Your task to perform on an android device: toggle data saver in the chrome app Image 0: 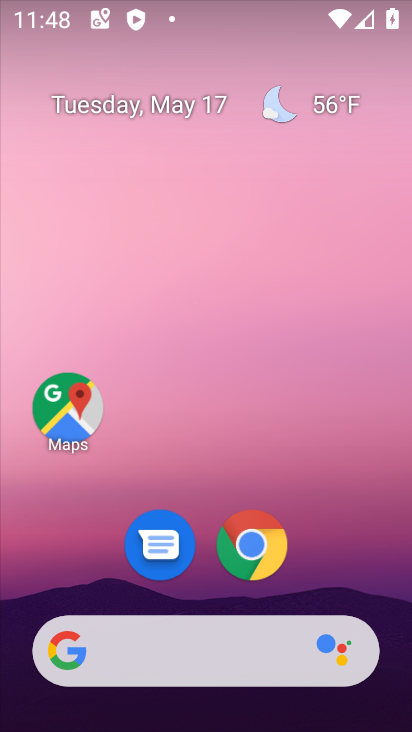
Step 0: click (247, 549)
Your task to perform on an android device: toggle data saver in the chrome app Image 1: 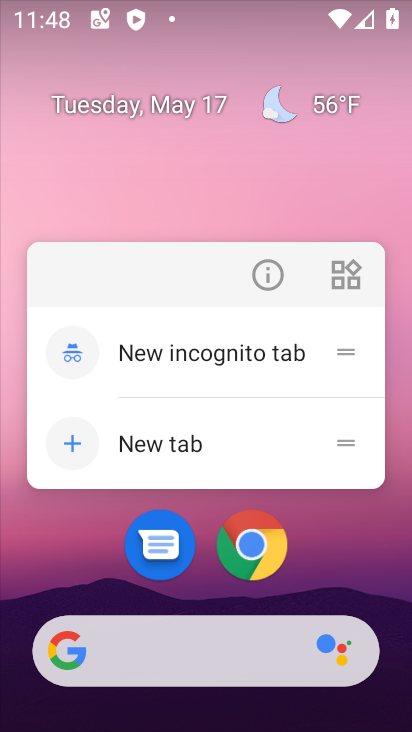
Step 1: click (259, 567)
Your task to perform on an android device: toggle data saver in the chrome app Image 2: 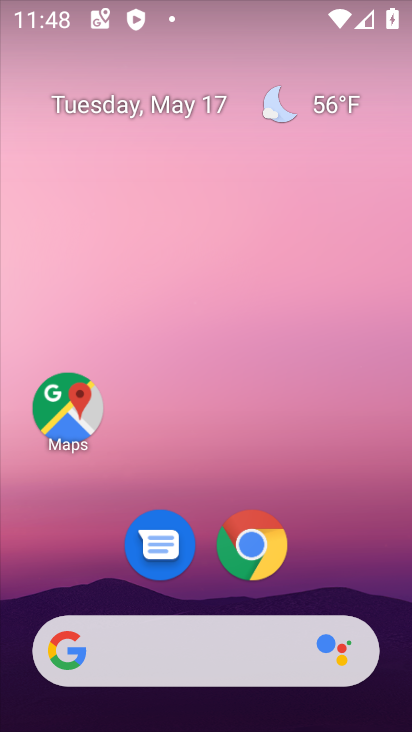
Step 2: click (253, 559)
Your task to perform on an android device: toggle data saver in the chrome app Image 3: 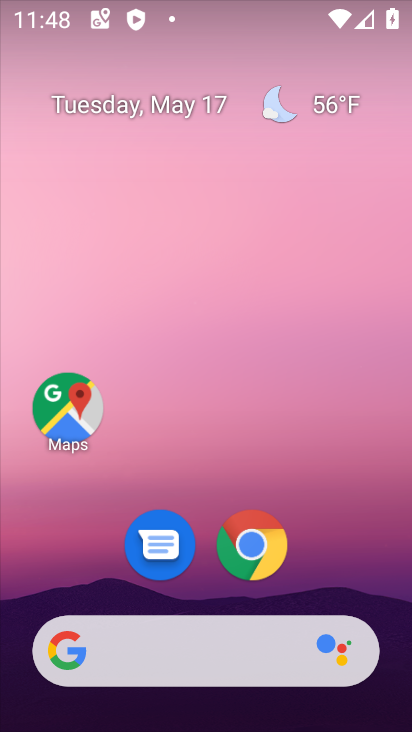
Step 3: drag from (178, 674) to (255, 21)
Your task to perform on an android device: toggle data saver in the chrome app Image 4: 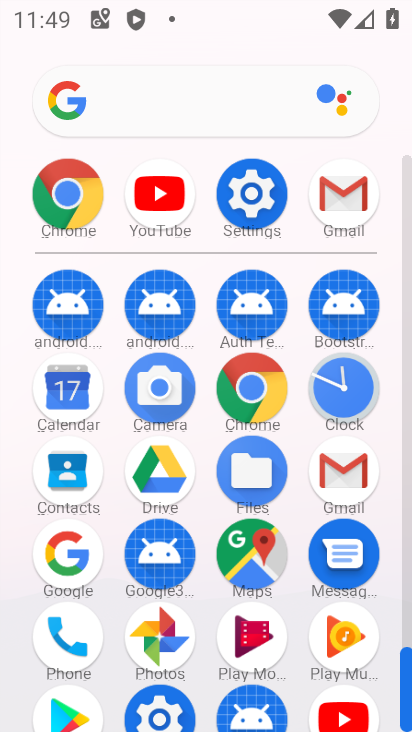
Step 4: click (268, 403)
Your task to perform on an android device: toggle data saver in the chrome app Image 5: 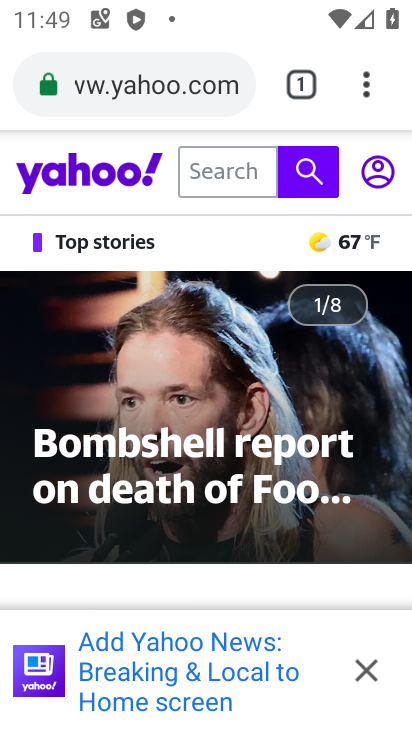
Step 5: click (375, 96)
Your task to perform on an android device: toggle data saver in the chrome app Image 6: 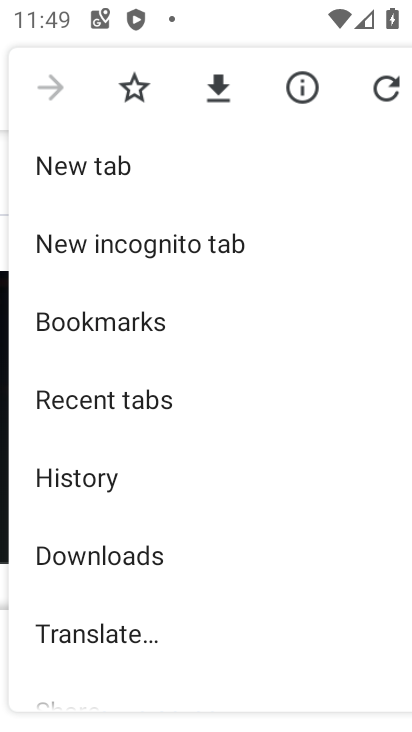
Step 6: drag from (258, 452) to (247, 162)
Your task to perform on an android device: toggle data saver in the chrome app Image 7: 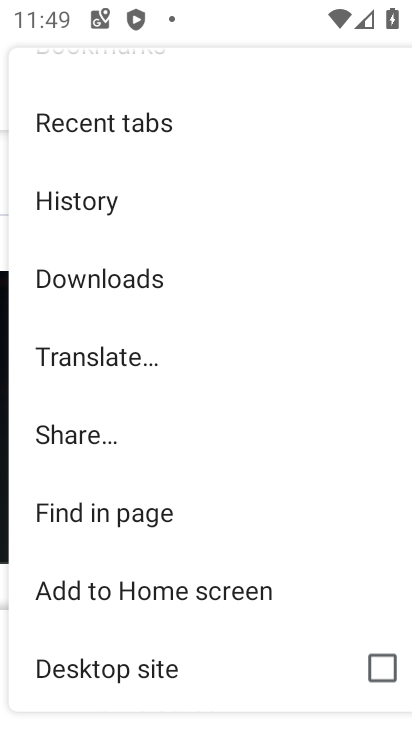
Step 7: drag from (179, 567) to (191, 157)
Your task to perform on an android device: toggle data saver in the chrome app Image 8: 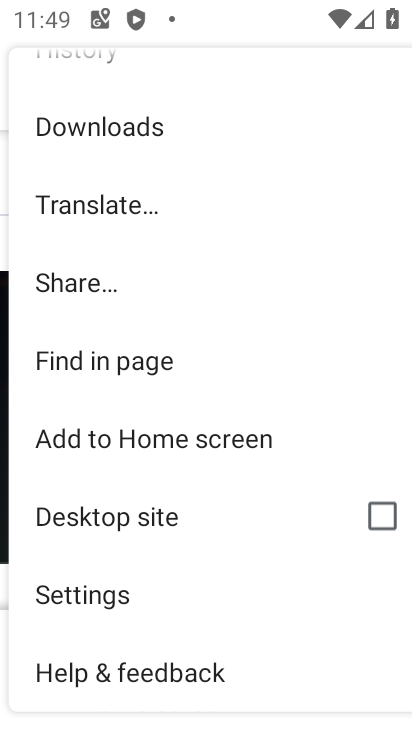
Step 8: click (127, 602)
Your task to perform on an android device: toggle data saver in the chrome app Image 9: 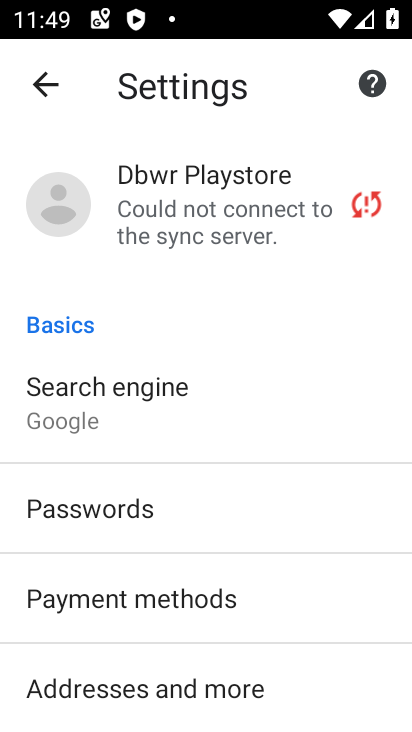
Step 9: drag from (127, 602) to (131, 288)
Your task to perform on an android device: toggle data saver in the chrome app Image 10: 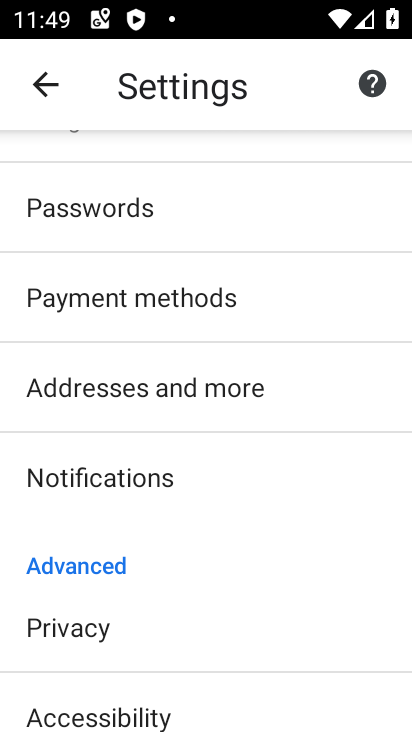
Step 10: drag from (163, 631) to (208, 344)
Your task to perform on an android device: toggle data saver in the chrome app Image 11: 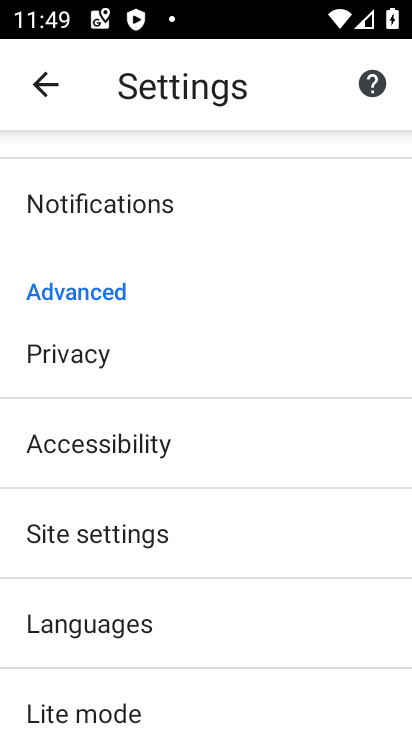
Step 11: drag from (254, 588) to (263, 398)
Your task to perform on an android device: toggle data saver in the chrome app Image 12: 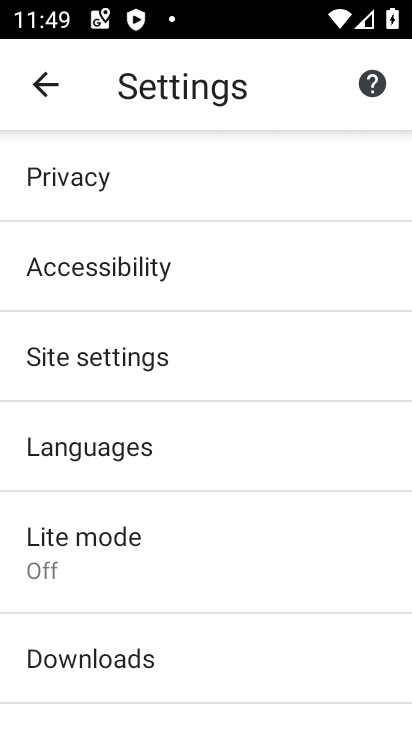
Step 12: drag from (158, 571) to (177, 463)
Your task to perform on an android device: toggle data saver in the chrome app Image 13: 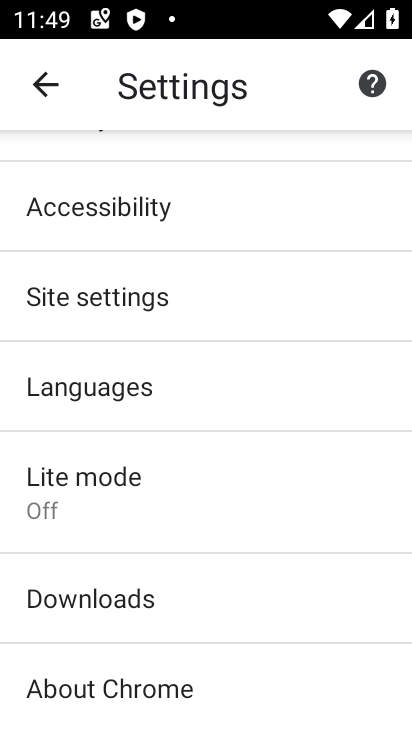
Step 13: click (153, 535)
Your task to perform on an android device: toggle data saver in the chrome app Image 14: 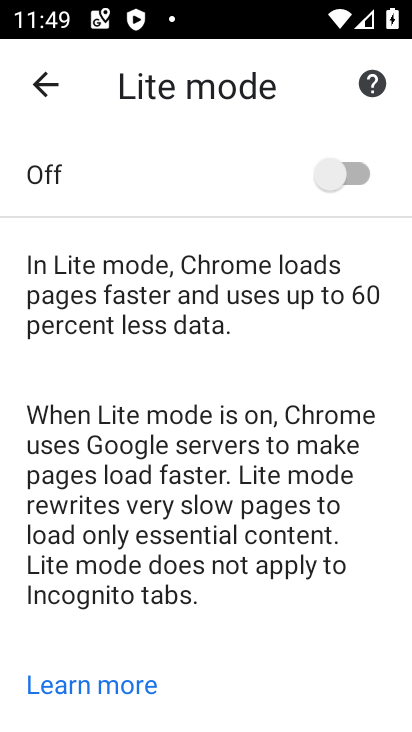
Step 14: click (369, 174)
Your task to perform on an android device: toggle data saver in the chrome app Image 15: 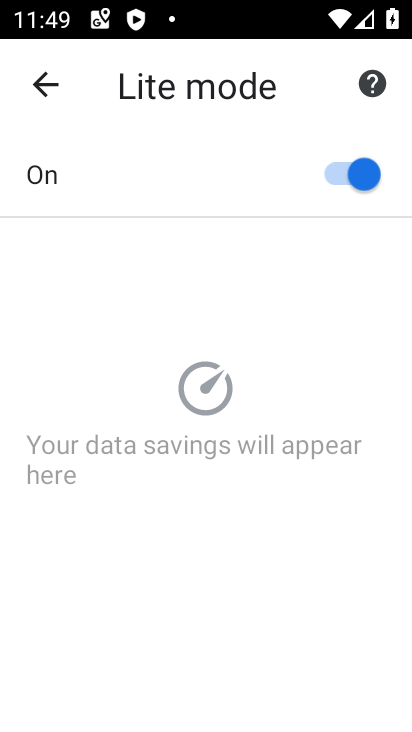
Step 15: task complete